Your task to perform on an android device: find which apps use the phone's location Image 0: 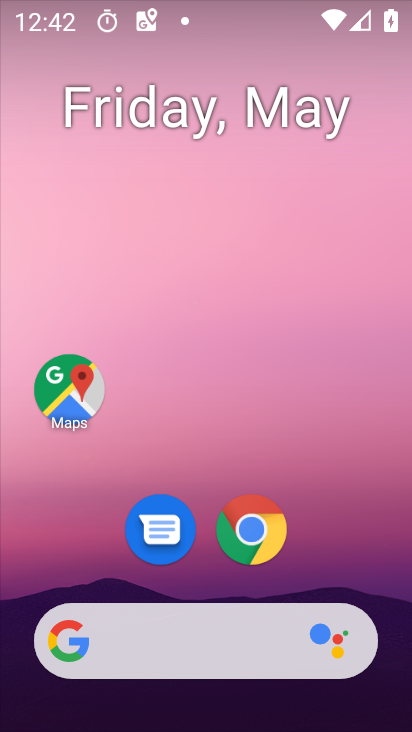
Step 0: drag from (210, 557) to (196, 155)
Your task to perform on an android device: find which apps use the phone's location Image 1: 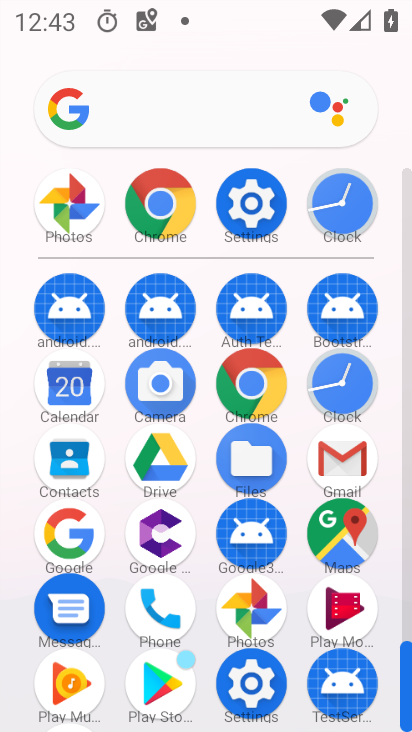
Step 1: click (267, 224)
Your task to perform on an android device: find which apps use the phone's location Image 2: 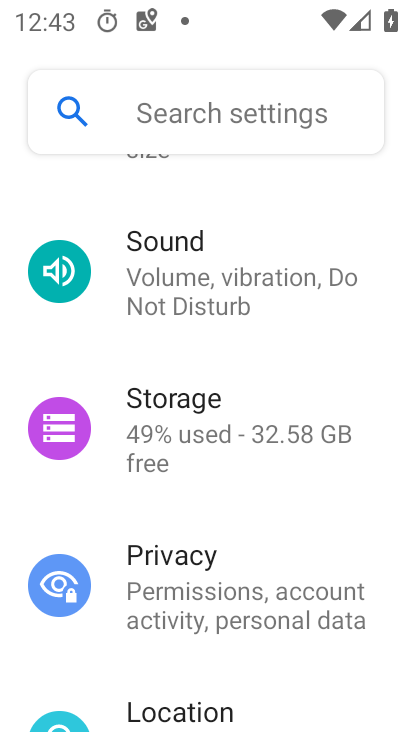
Step 2: drag from (244, 484) to (249, 702)
Your task to perform on an android device: find which apps use the phone's location Image 3: 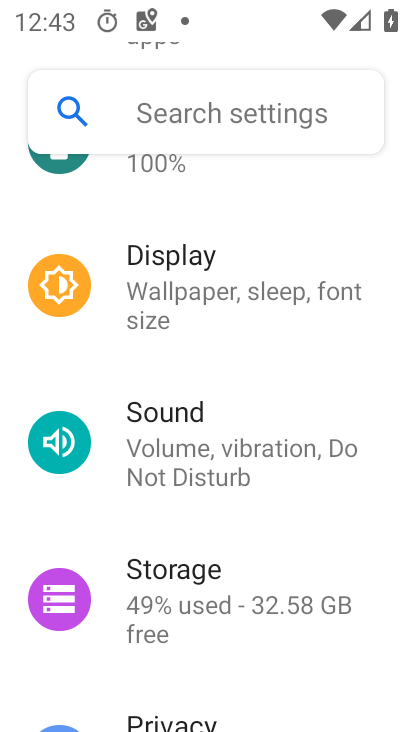
Step 3: drag from (165, 547) to (209, 197)
Your task to perform on an android device: find which apps use the phone's location Image 4: 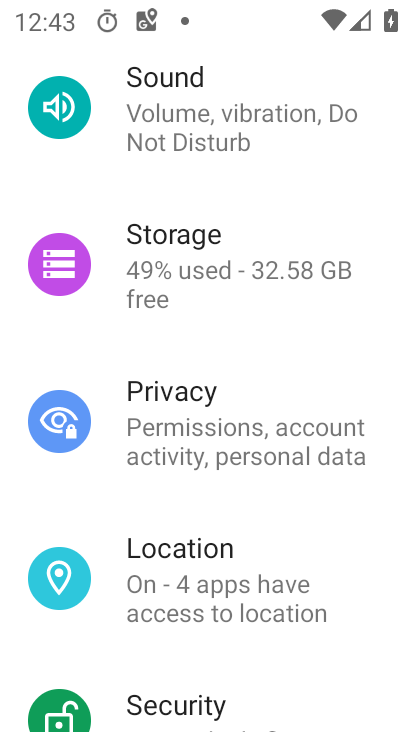
Step 4: click (189, 564)
Your task to perform on an android device: find which apps use the phone's location Image 5: 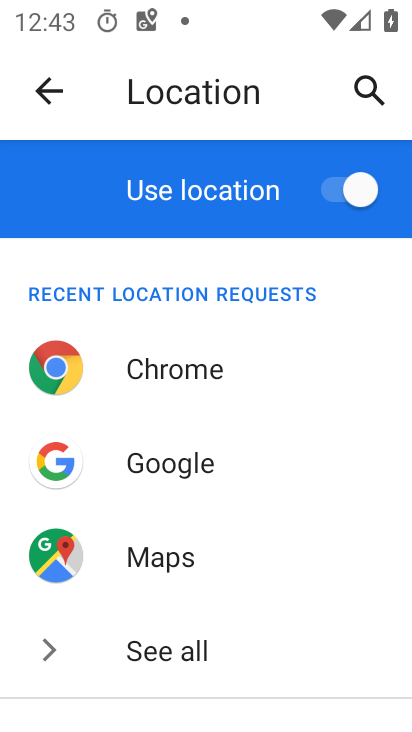
Step 5: drag from (202, 579) to (217, 198)
Your task to perform on an android device: find which apps use the phone's location Image 6: 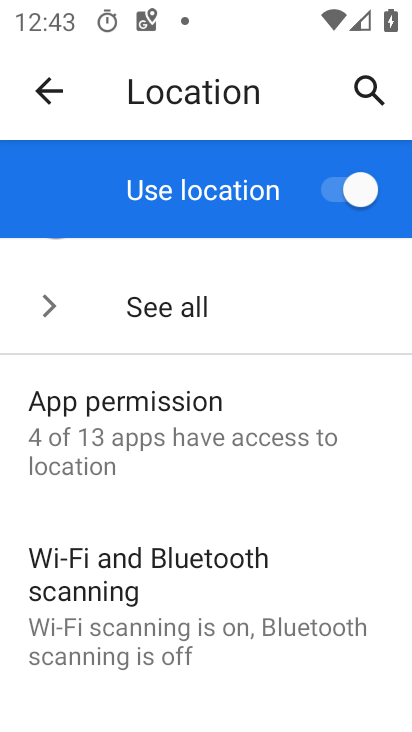
Step 6: drag from (187, 558) to (237, 223)
Your task to perform on an android device: find which apps use the phone's location Image 7: 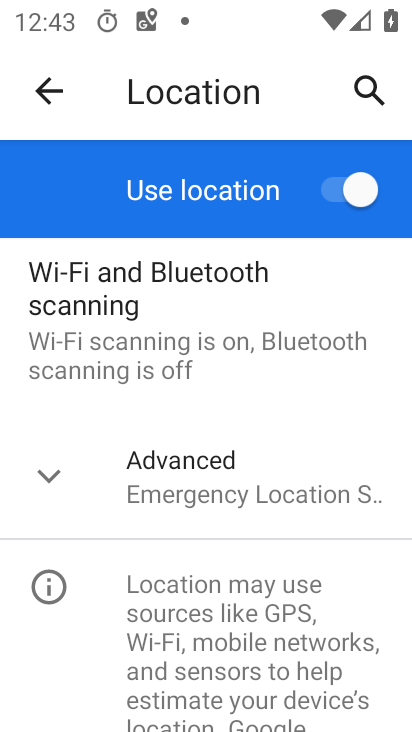
Step 7: drag from (232, 272) to (254, 688)
Your task to perform on an android device: find which apps use the phone's location Image 8: 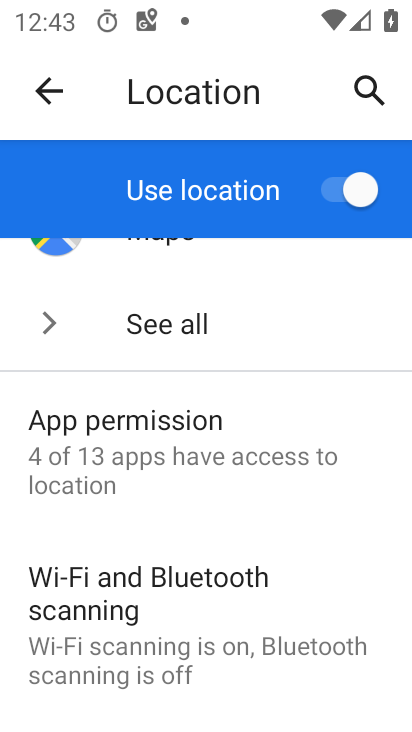
Step 8: click (279, 448)
Your task to perform on an android device: find which apps use the phone's location Image 9: 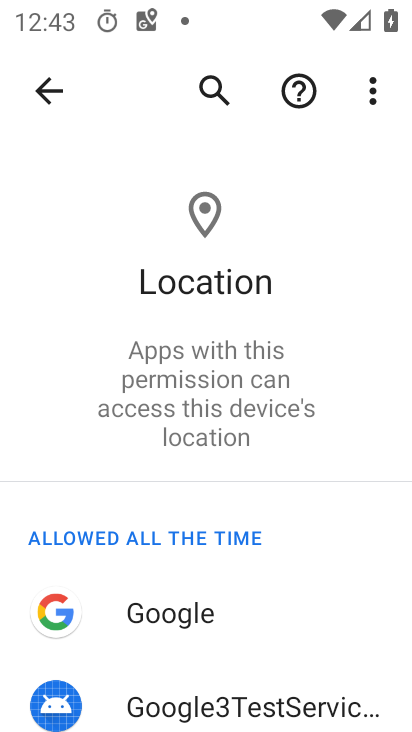
Step 9: task complete